Your task to perform on an android device: turn on priority inbox in the gmail app Image 0: 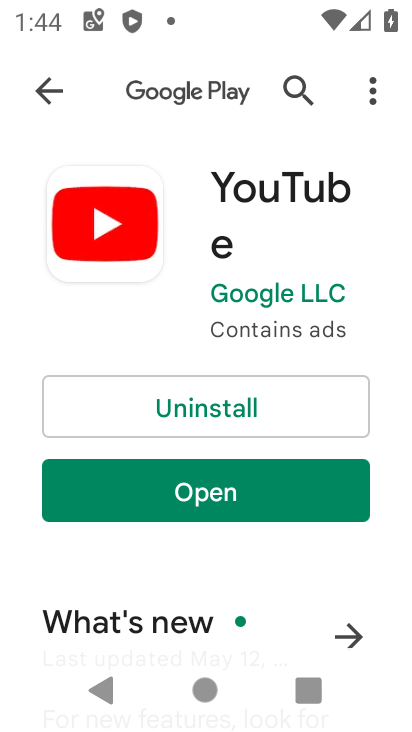
Step 0: press home button
Your task to perform on an android device: turn on priority inbox in the gmail app Image 1: 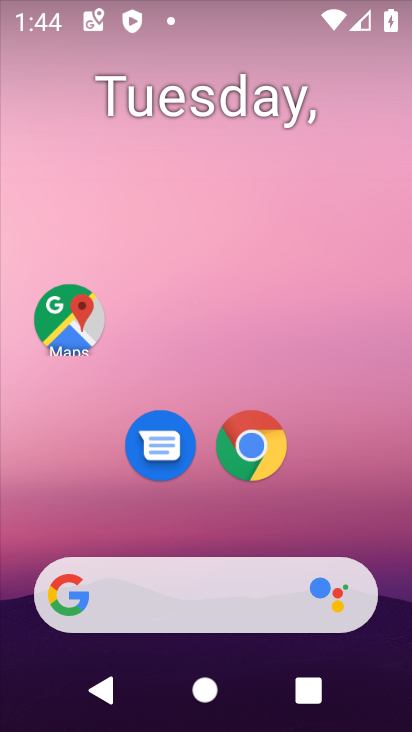
Step 1: drag from (332, 477) to (209, 48)
Your task to perform on an android device: turn on priority inbox in the gmail app Image 2: 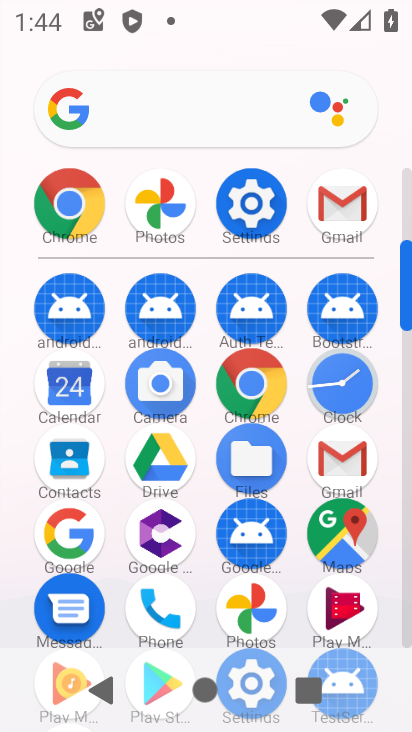
Step 2: click (341, 214)
Your task to perform on an android device: turn on priority inbox in the gmail app Image 3: 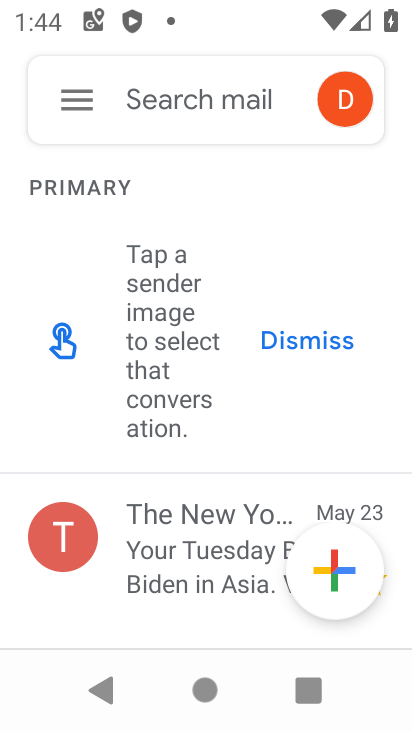
Step 3: click (61, 93)
Your task to perform on an android device: turn on priority inbox in the gmail app Image 4: 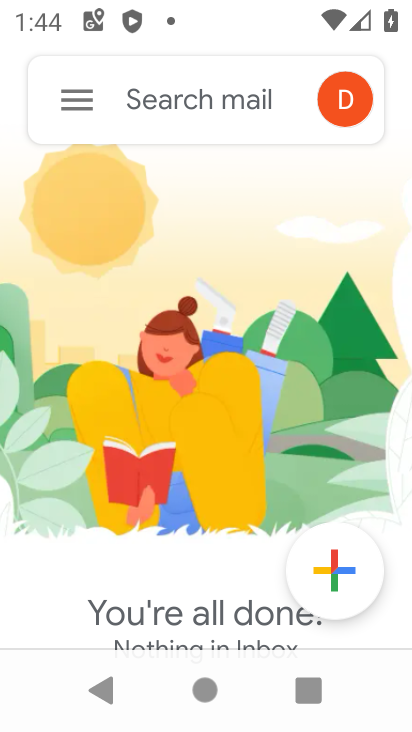
Step 4: click (79, 110)
Your task to perform on an android device: turn on priority inbox in the gmail app Image 5: 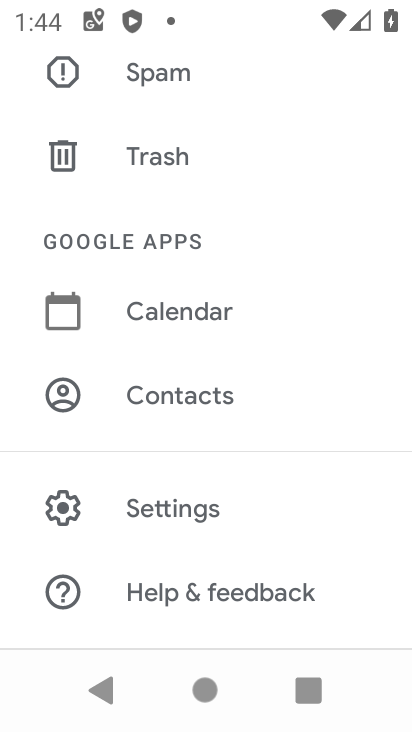
Step 5: click (197, 501)
Your task to perform on an android device: turn on priority inbox in the gmail app Image 6: 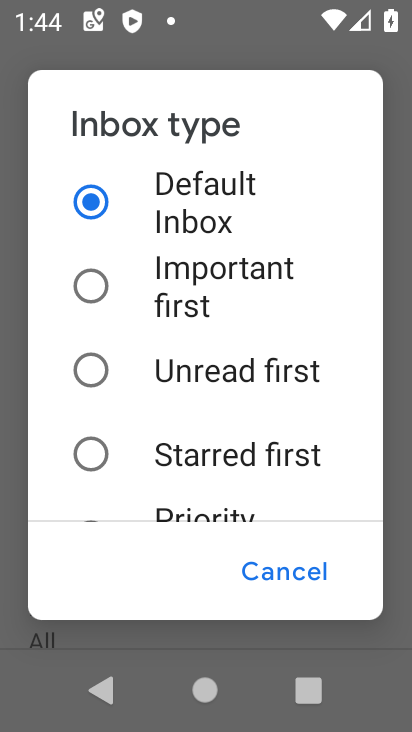
Step 6: drag from (218, 443) to (195, 132)
Your task to perform on an android device: turn on priority inbox in the gmail app Image 7: 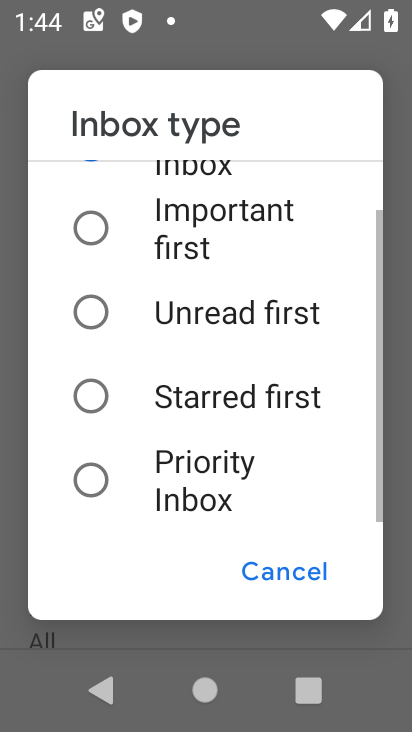
Step 7: click (139, 311)
Your task to perform on an android device: turn on priority inbox in the gmail app Image 8: 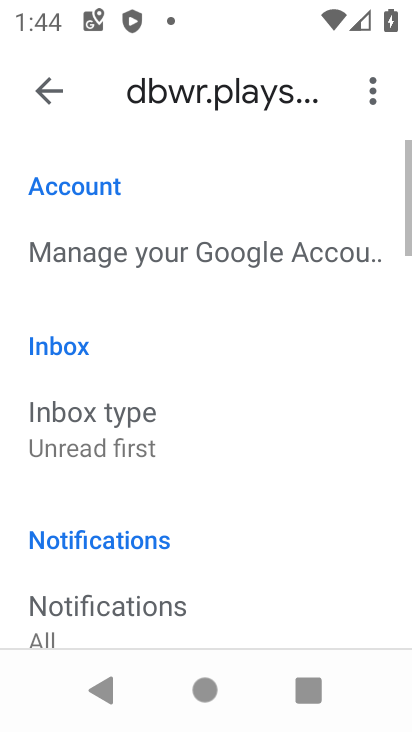
Step 8: task complete